Your task to perform on an android device: move an email to a new category in the gmail app Image 0: 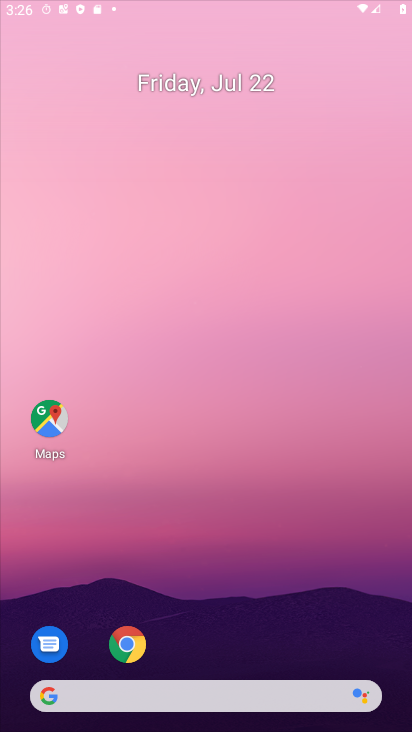
Step 0: press home button
Your task to perform on an android device: move an email to a new category in the gmail app Image 1: 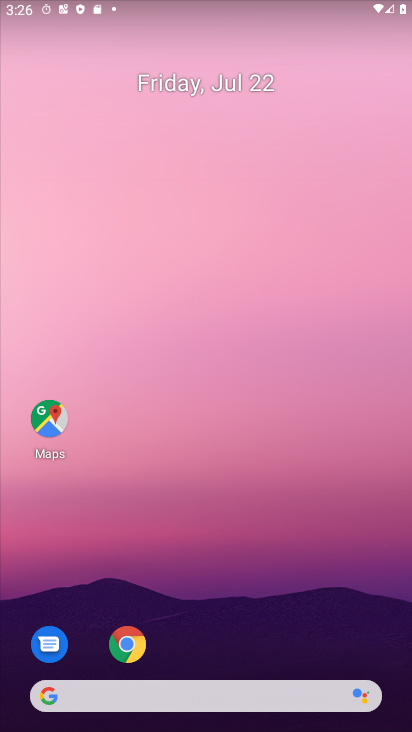
Step 1: drag from (218, 643) to (183, 120)
Your task to perform on an android device: move an email to a new category in the gmail app Image 2: 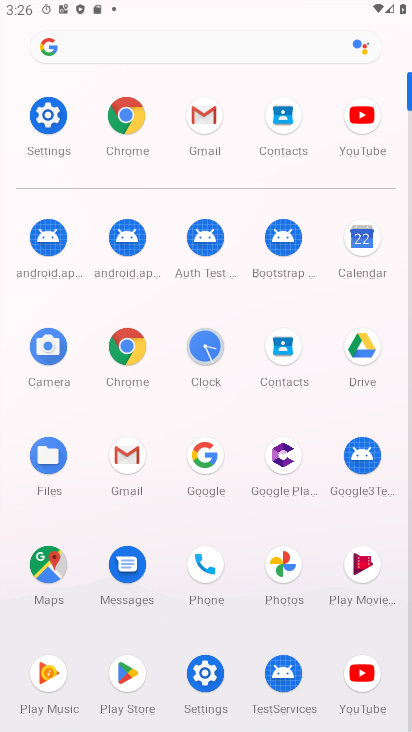
Step 2: click (208, 129)
Your task to perform on an android device: move an email to a new category in the gmail app Image 3: 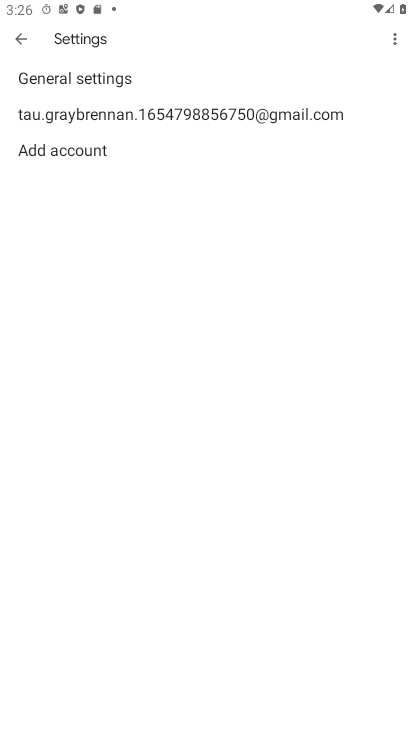
Step 3: click (14, 40)
Your task to perform on an android device: move an email to a new category in the gmail app Image 4: 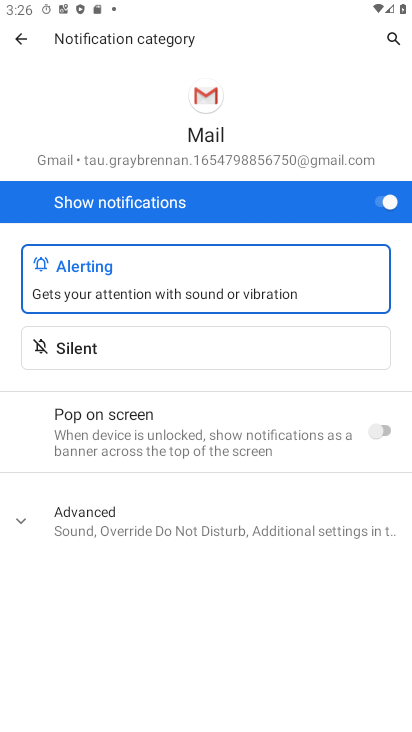
Step 4: click (16, 44)
Your task to perform on an android device: move an email to a new category in the gmail app Image 5: 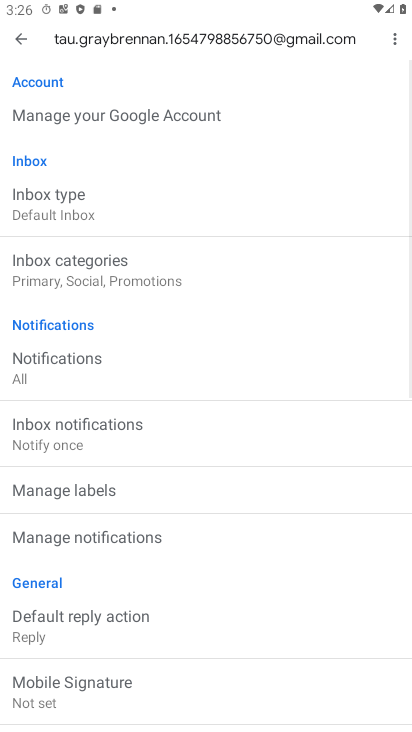
Step 5: click (16, 43)
Your task to perform on an android device: move an email to a new category in the gmail app Image 6: 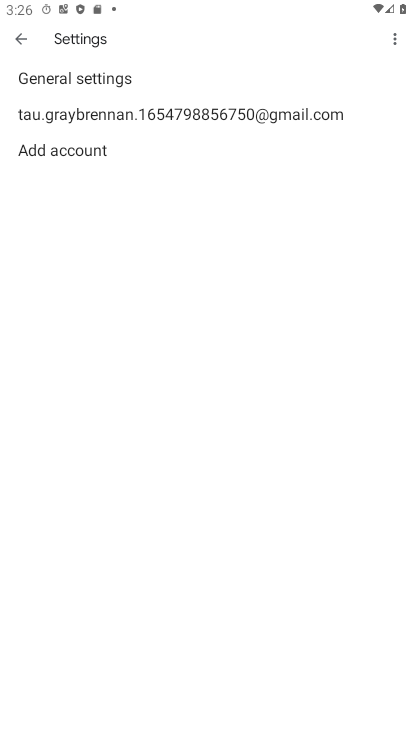
Step 6: click (16, 43)
Your task to perform on an android device: move an email to a new category in the gmail app Image 7: 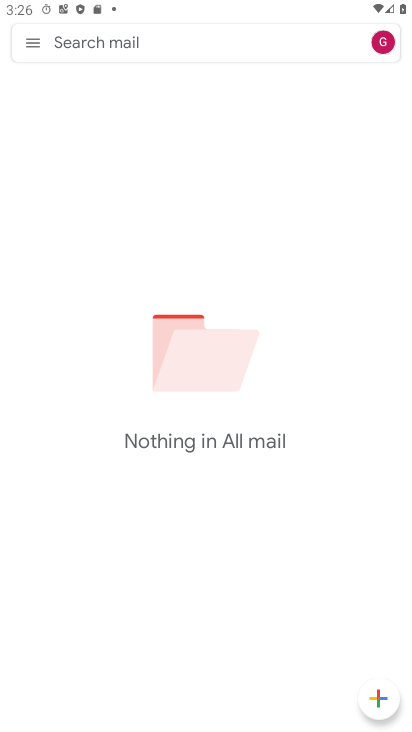
Step 7: click (27, 38)
Your task to perform on an android device: move an email to a new category in the gmail app Image 8: 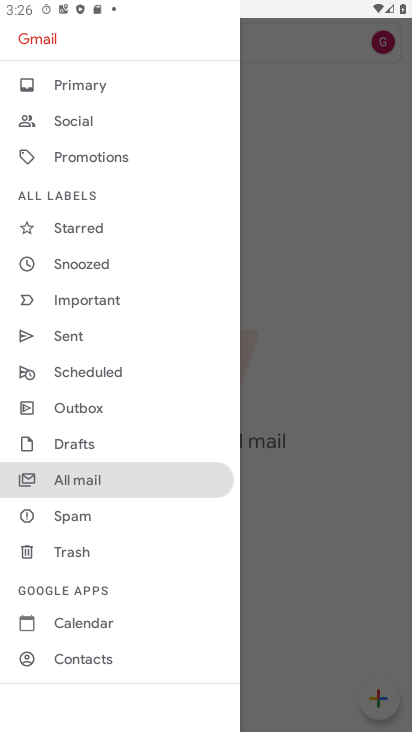
Step 8: click (83, 474)
Your task to perform on an android device: move an email to a new category in the gmail app Image 9: 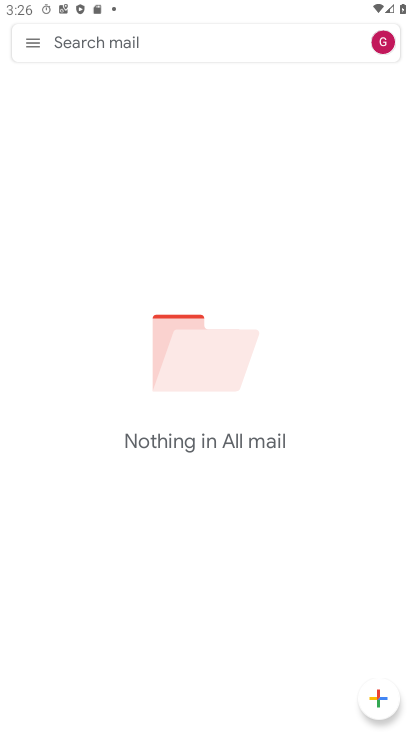
Step 9: task complete